Your task to perform on an android device: Open Reddit.com Image 0: 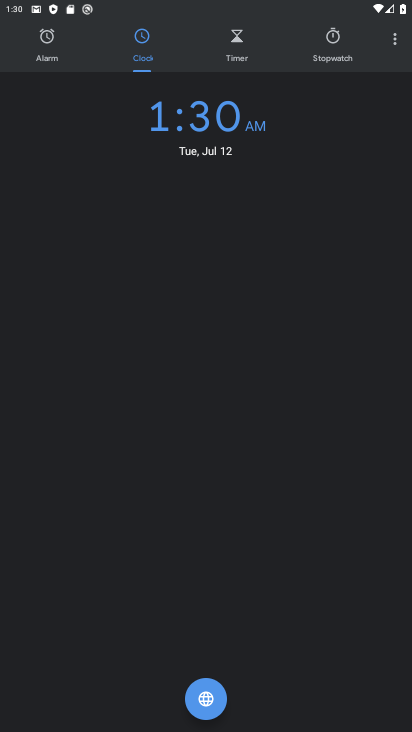
Step 0: press back button
Your task to perform on an android device: Open Reddit.com Image 1: 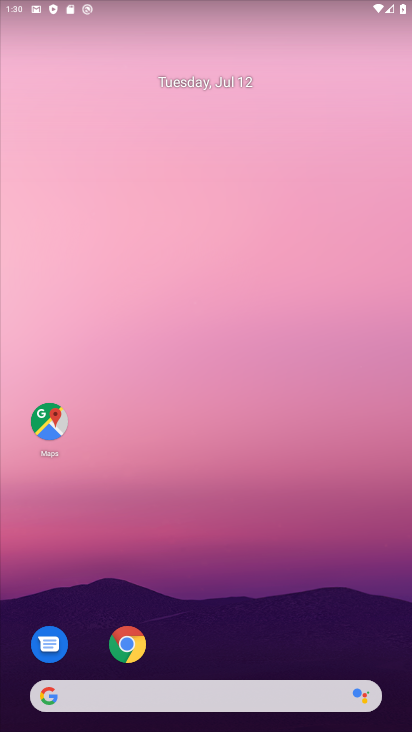
Step 1: click (130, 641)
Your task to perform on an android device: Open Reddit.com Image 2: 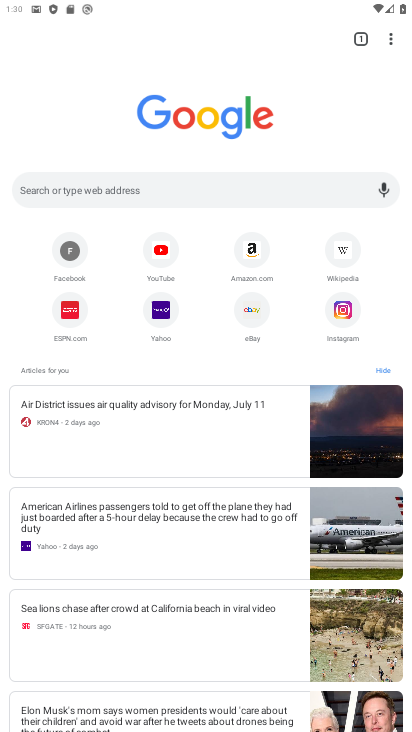
Step 2: click (134, 186)
Your task to perform on an android device: Open Reddit.com Image 3: 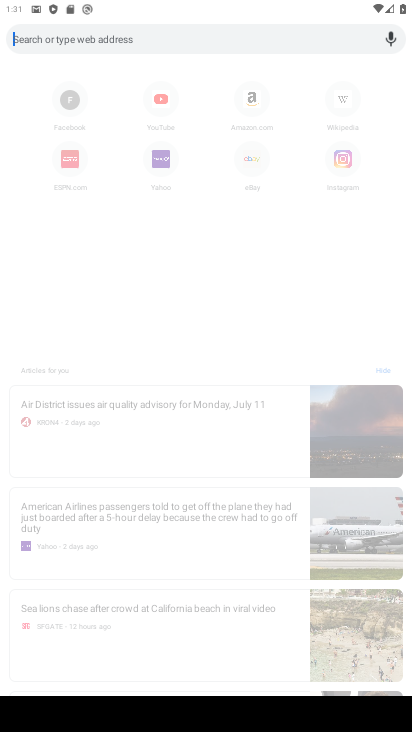
Step 3: click (72, 32)
Your task to perform on an android device: Open Reddit.com Image 4: 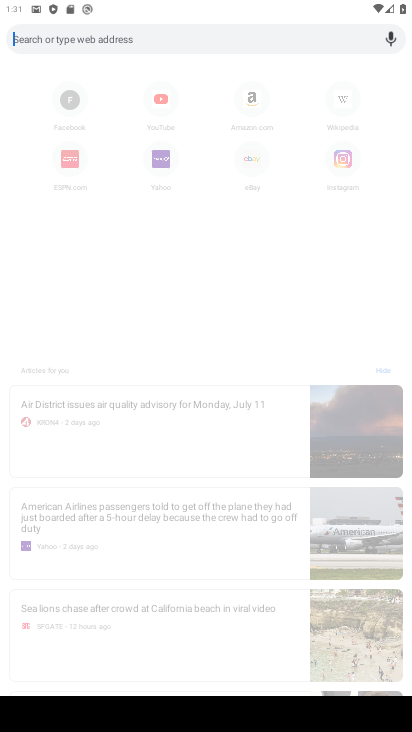
Step 4: type "reddit.com"
Your task to perform on an android device: Open Reddit.com Image 5: 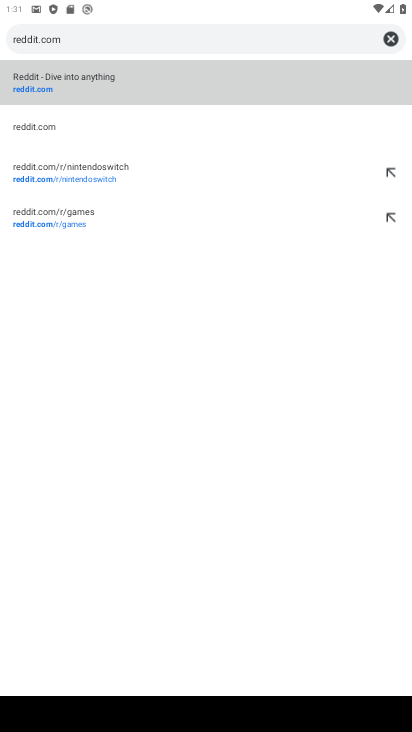
Step 5: click (161, 97)
Your task to perform on an android device: Open Reddit.com Image 6: 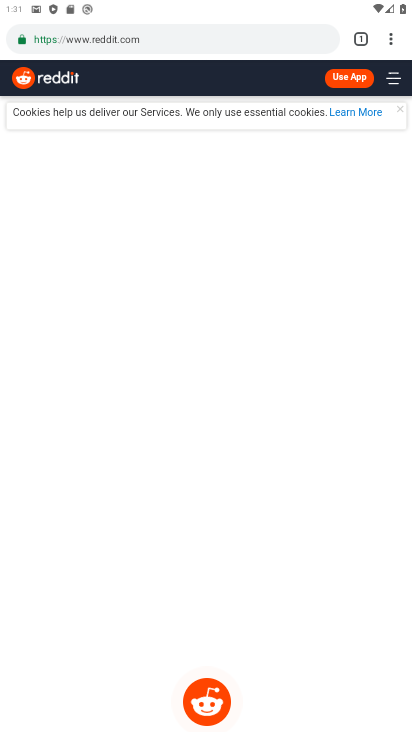
Step 6: task complete